Your task to perform on an android device: Go to accessibility settings Image 0: 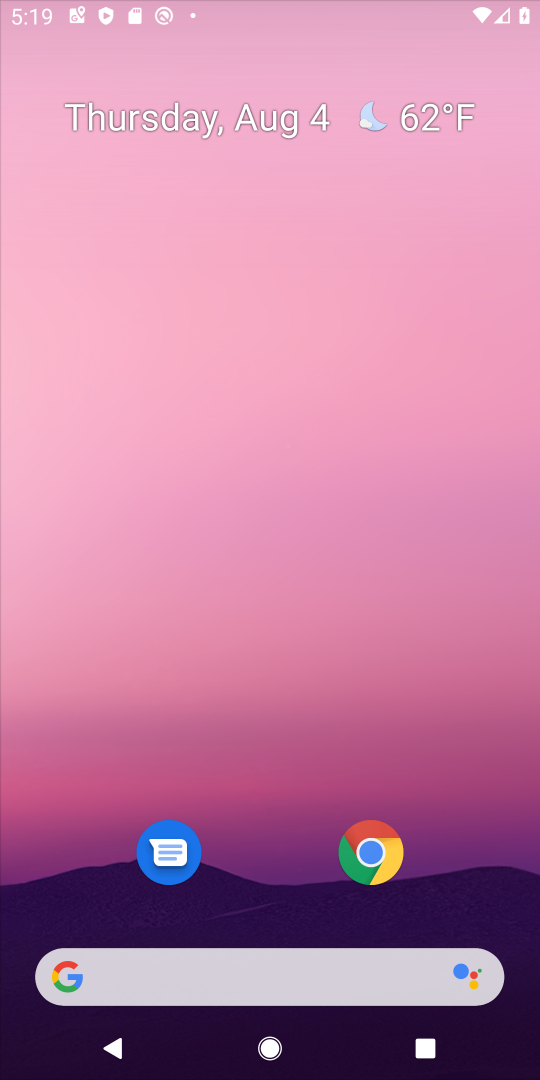
Step 0: press home button
Your task to perform on an android device: Go to accessibility settings Image 1: 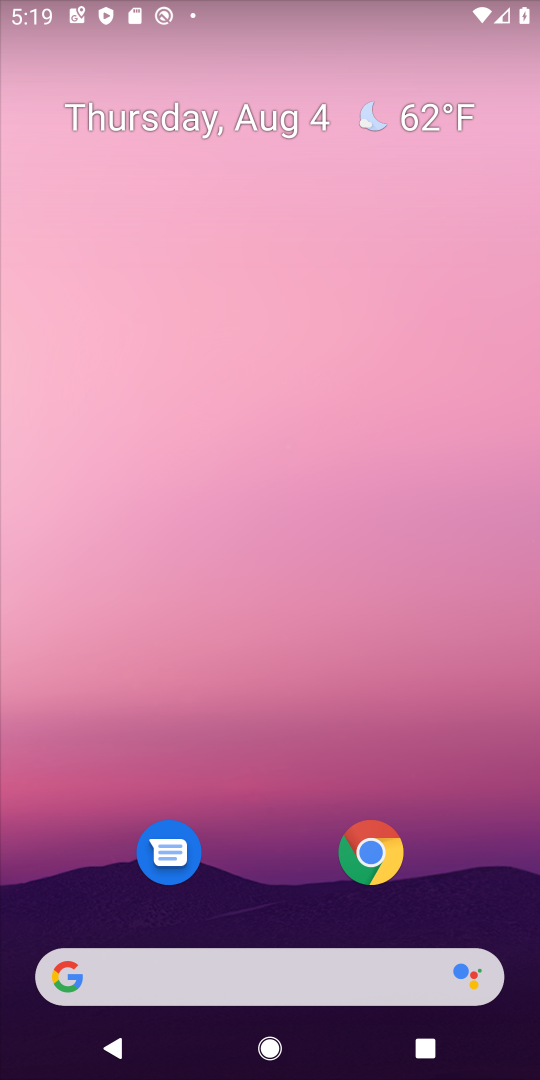
Step 1: drag from (269, 819) to (269, 139)
Your task to perform on an android device: Go to accessibility settings Image 2: 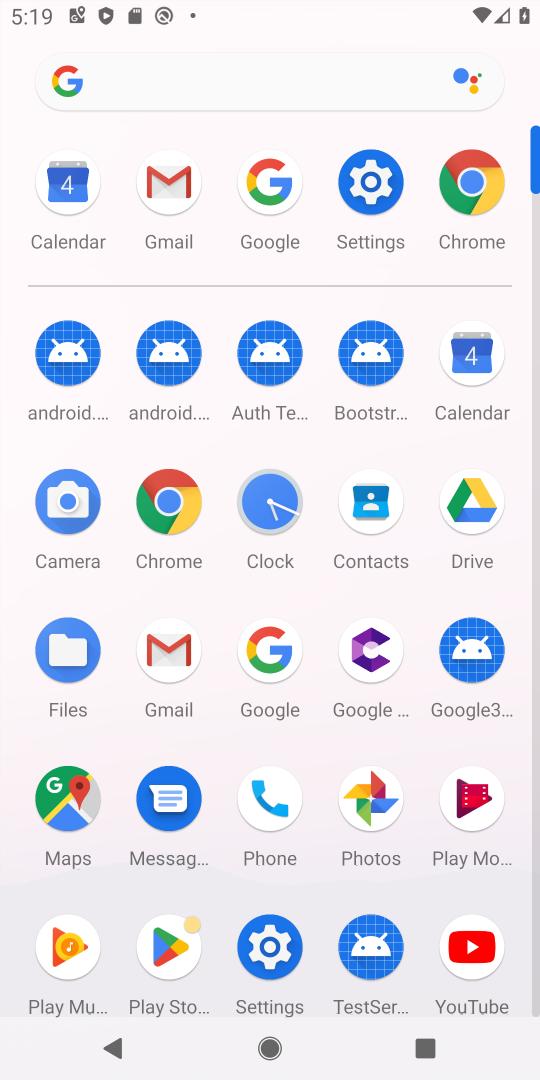
Step 2: click (385, 179)
Your task to perform on an android device: Go to accessibility settings Image 3: 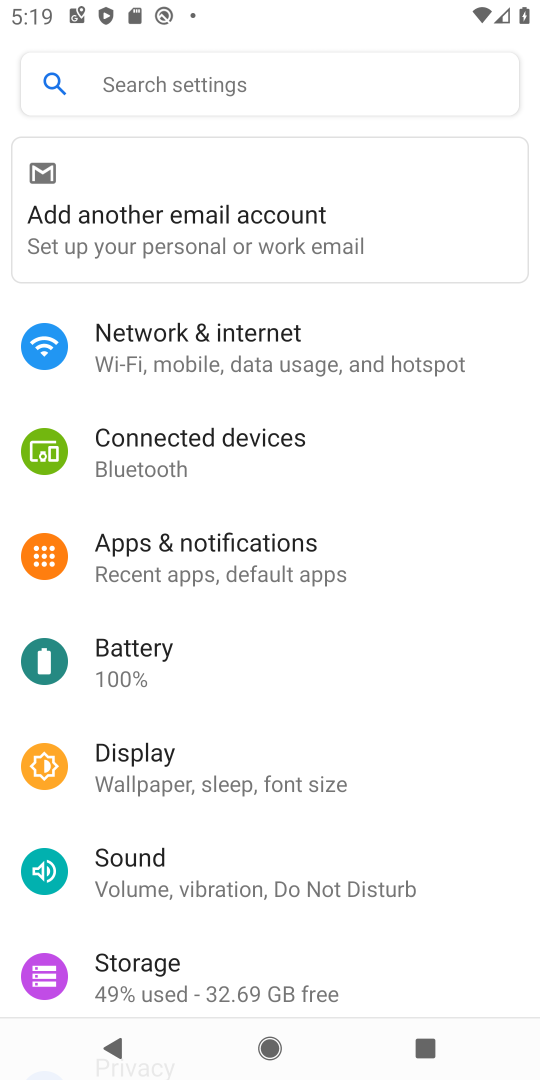
Step 3: drag from (192, 957) to (188, 351)
Your task to perform on an android device: Go to accessibility settings Image 4: 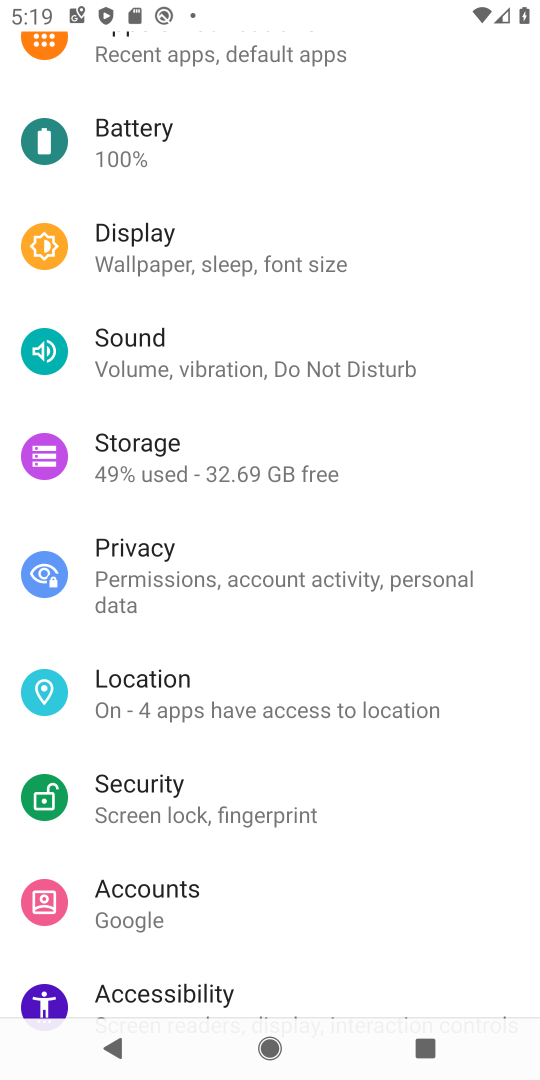
Step 4: drag from (185, 622) to (185, 540)
Your task to perform on an android device: Go to accessibility settings Image 5: 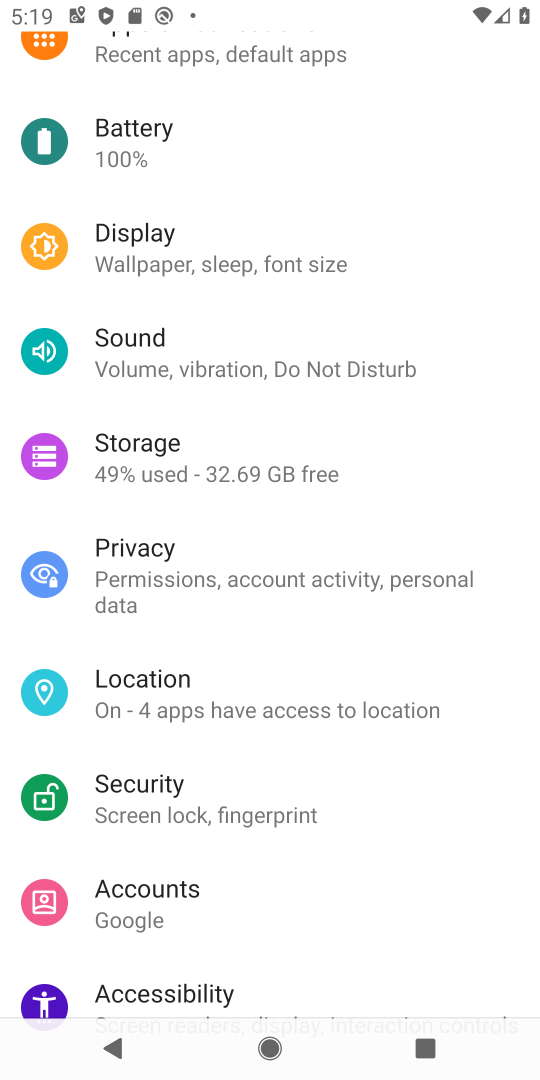
Step 5: click (169, 992)
Your task to perform on an android device: Go to accessibility settings Image 6: 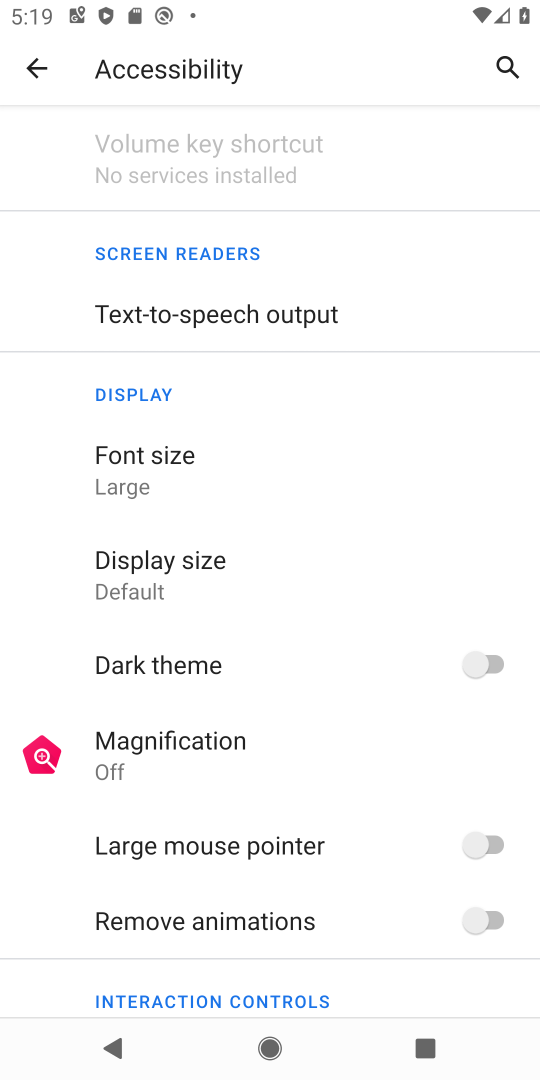
Step 6: task complete